Your task to perform on an android device: Open calendar and show me the third week of next month Image 0: 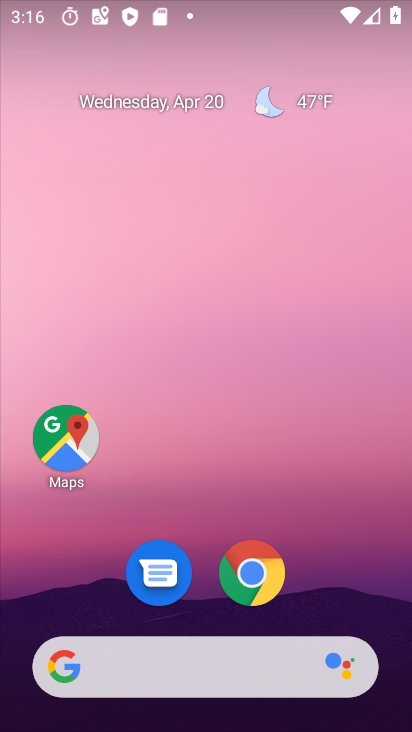
Step 0: drag from (205, 716) to (209, 172)
Your task to perform on an android device: Open calendar and show me the third week of next month Image 1: 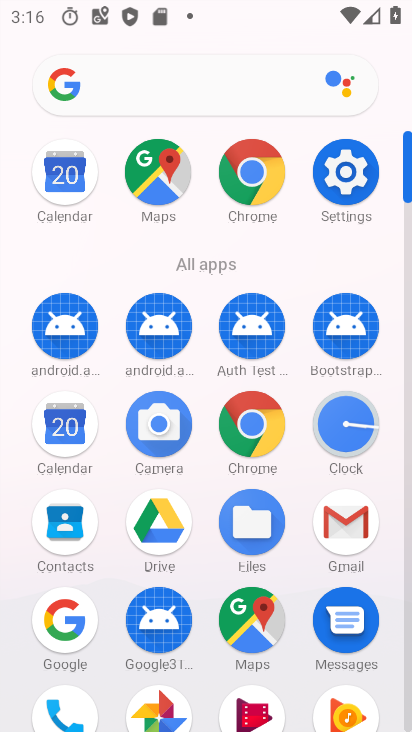
Step 1: click (73, 425)
Your task to perform on an android device: Open calendar and show me the third week of next month Image 2: 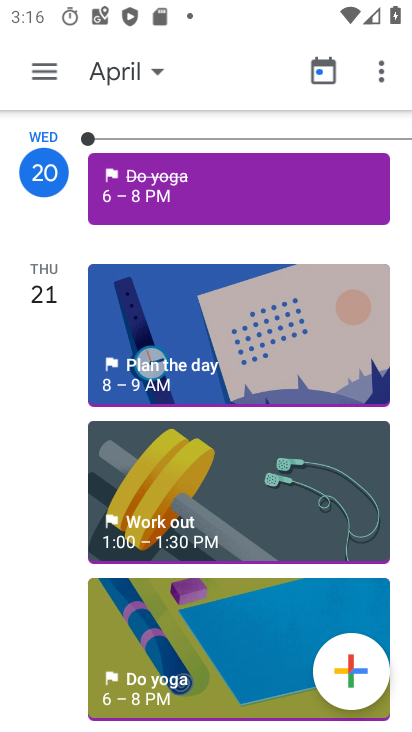
Step 2: click (121, 70)
Your task to perform on an android device: Open calendar and show me the third week of next month Image 3: 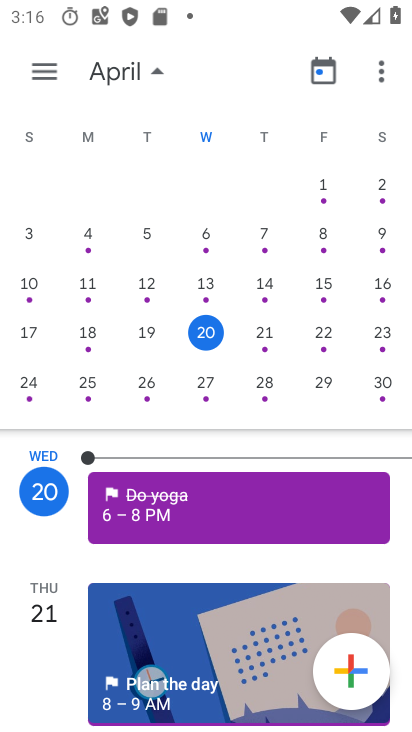
Step 3: drag from (354, 331) to (145, 7)
Your task to perform on an android device: Open calendar and show me the third week of next month Image 4: 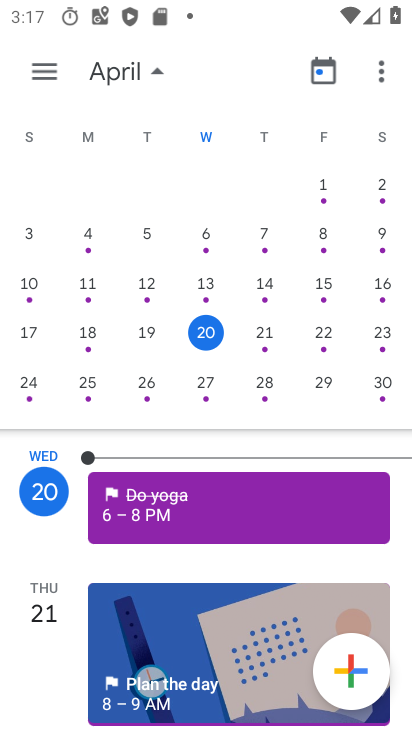
Step 4: drag from (372, 281) to (0, 322)
Your task to perform on an android device: Open calendar and show me the third week of next month Image 5: 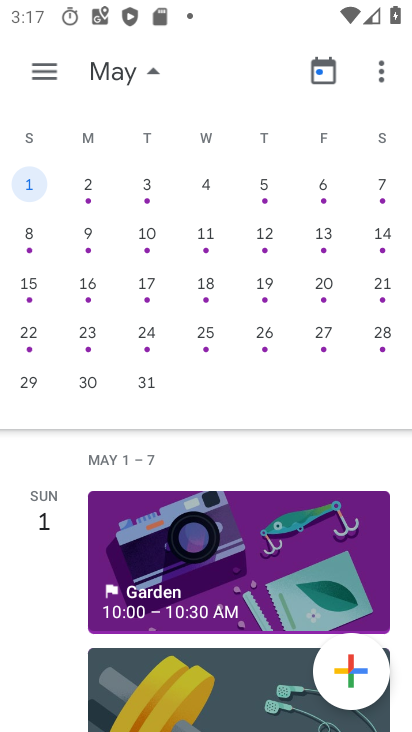
Step 5: click (88, 280)
Your task to perform on an android device: Open calendar and show me the third week of next month Image 6: 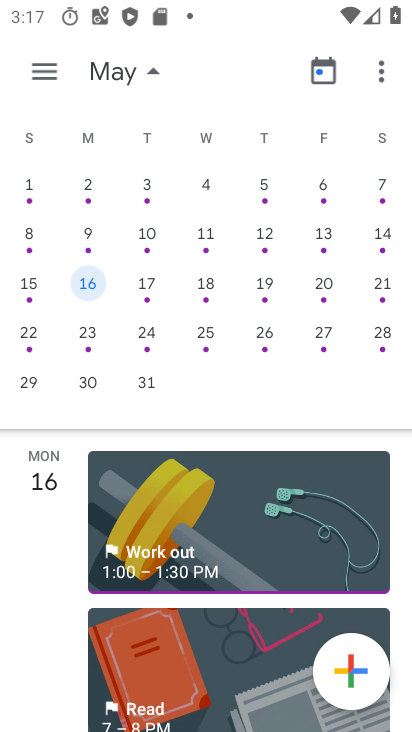
Step 6: task complete